Your task to perform on an android device: Open Reddit.com Image 0: 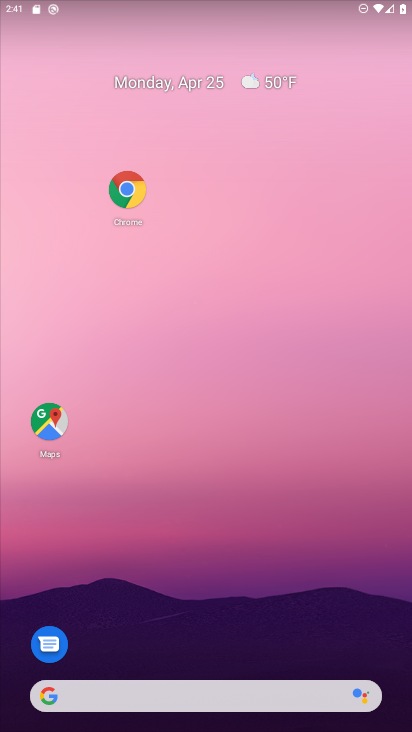
Step 0: click (129, 182)
Your task to perform on an android device: Open Reddit.com Image 1: 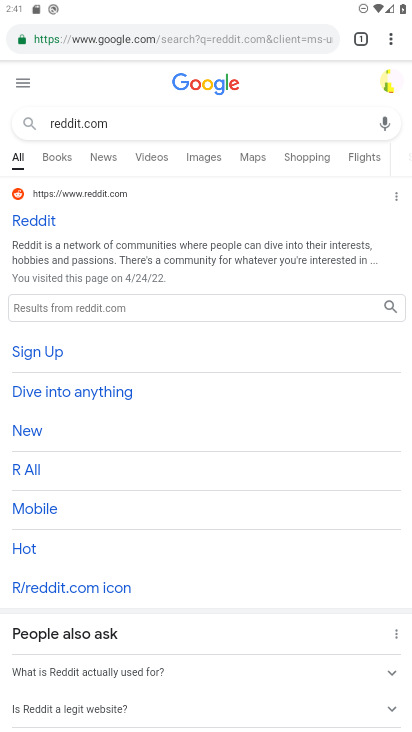
Step 1: click (141, 126)
Your task to perform on an android device: Open Reddit.com Image 2: 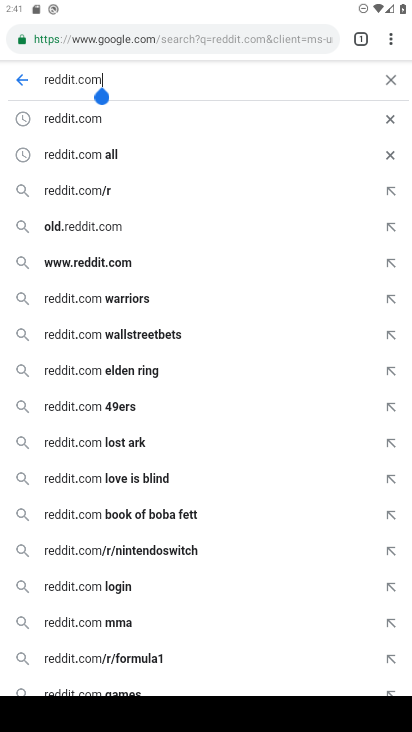
Step 2: click (391, 82)
Your task to perform on an android device: Open Reddit.com Image 3: 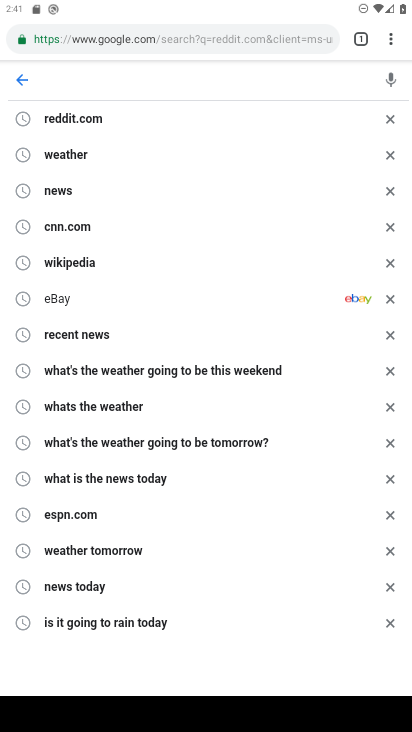
Step 3: type "Reddit.com"
Your task to perform on an android device: Open Reddit.com Image 4: 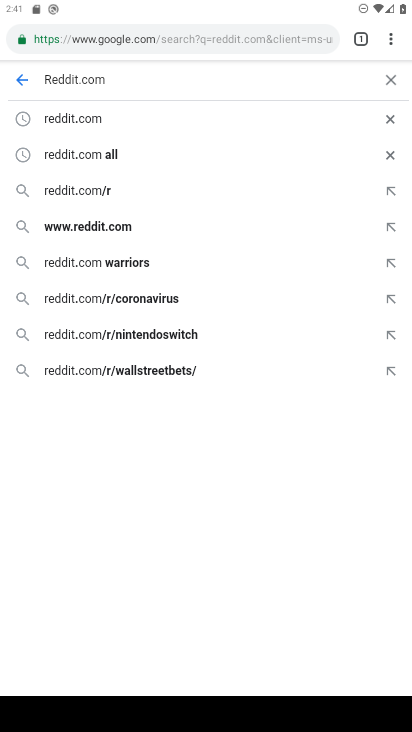
Step 4: click (81, 127)
Your task to perform on an android device: Open Reddit.com Image 5: 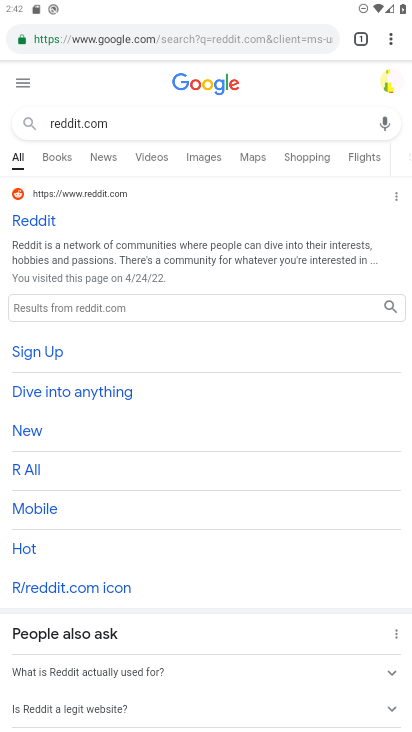
Step 5: task complete